Your task to perform on an android device: open wifi settings Image 0: 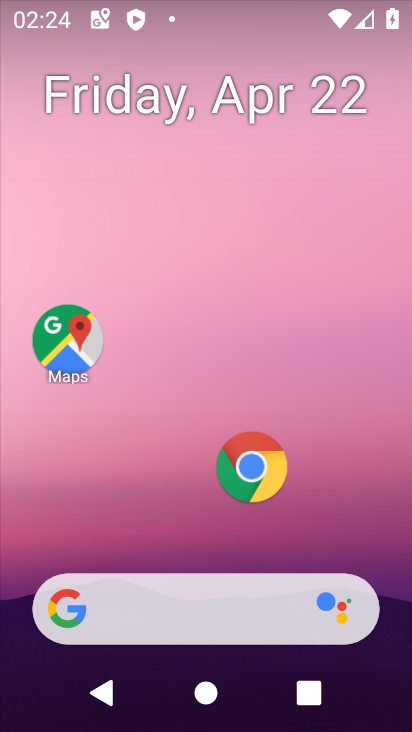
Step 0: drag from (176, 556) to (258, 93)
Your task to perform on an android device: open wifi settings Image 1: 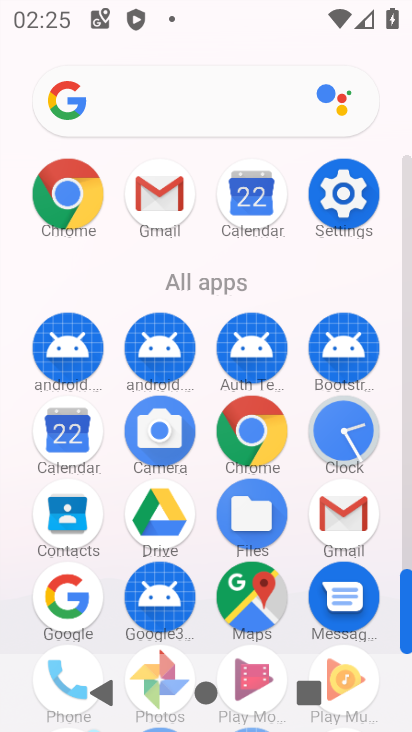
Step 1: click (348, 185)
Your task to perform on an android device: open wifi settings Image 2: 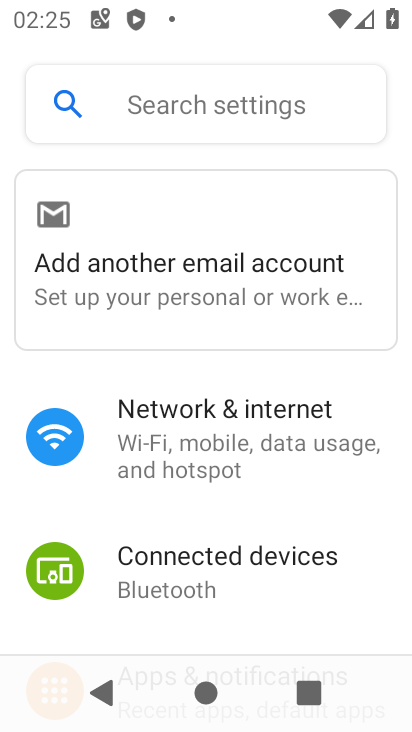
Step 2: click (155, 455)
Your task to perform on an android device: open wifi settings Image 3: 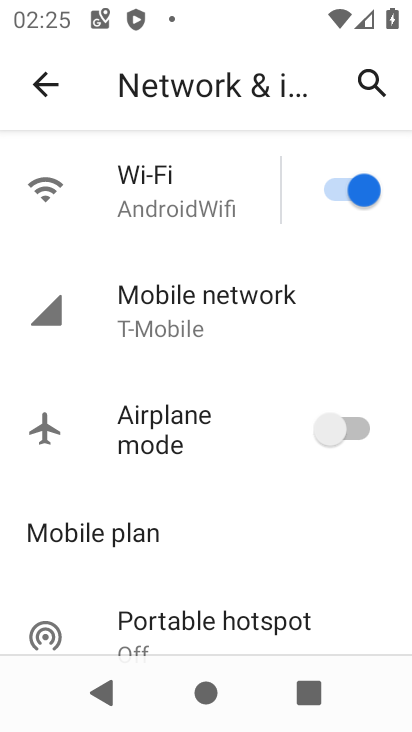
Step 3: task complete